Your task to perform on an android device: Open Yahoo.com Image 0: 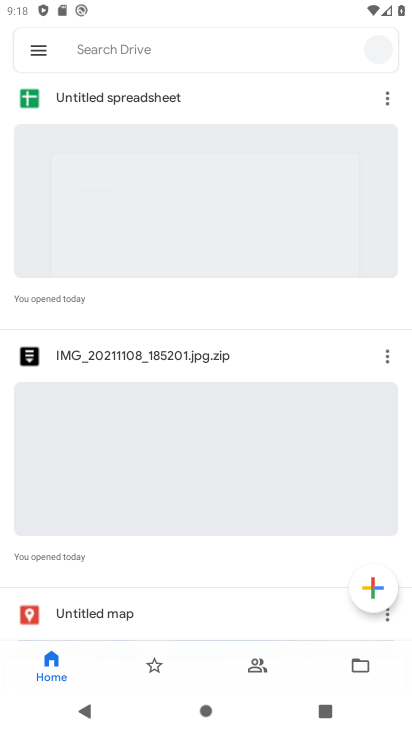
Step 0: drag from (259, 569) to (264, 502)
Your task to perform on an android device: Open Yahoo.com Image 1: 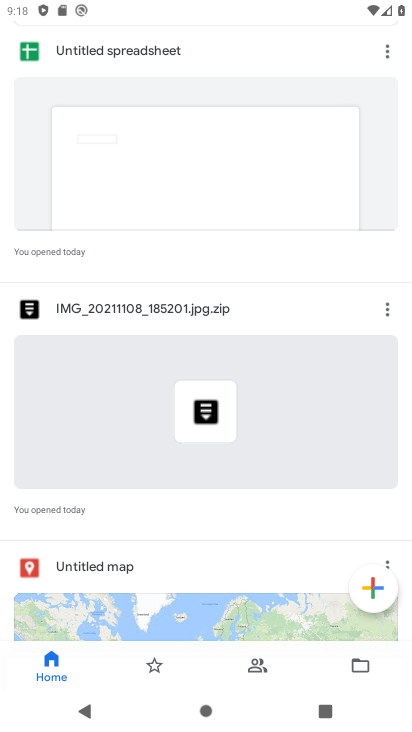
Step 1: press home button
Your task to perform on an android device: Open Yahoo.com Image 2: 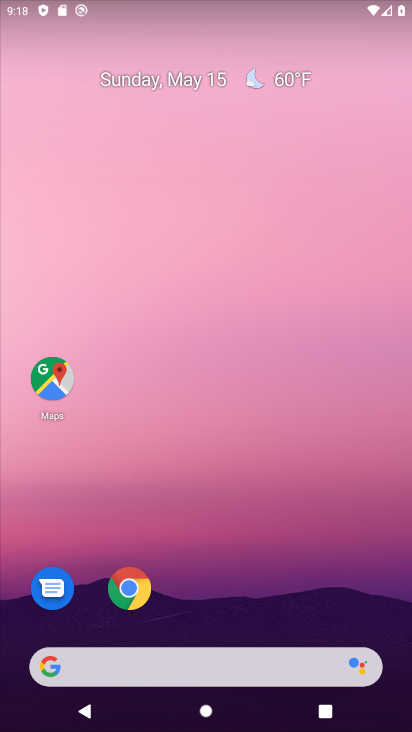
Step 2: click (137, 590)
Your task to perform on an android device: Open Yahoo.com Image 3: 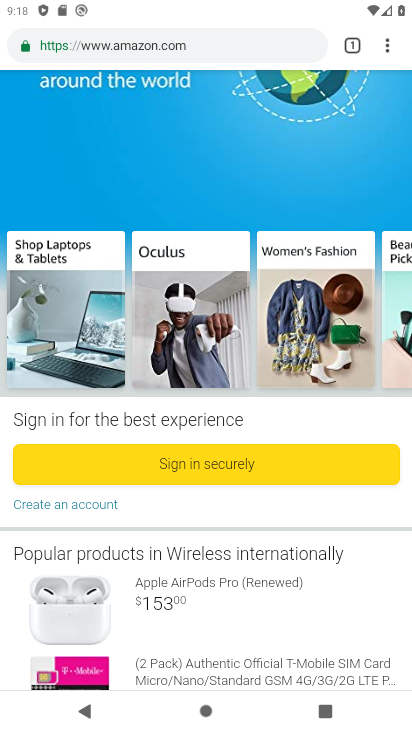
Step 3: click (216, 40)
Your task to perform on an android device: Open Yahoo.com Image 4: 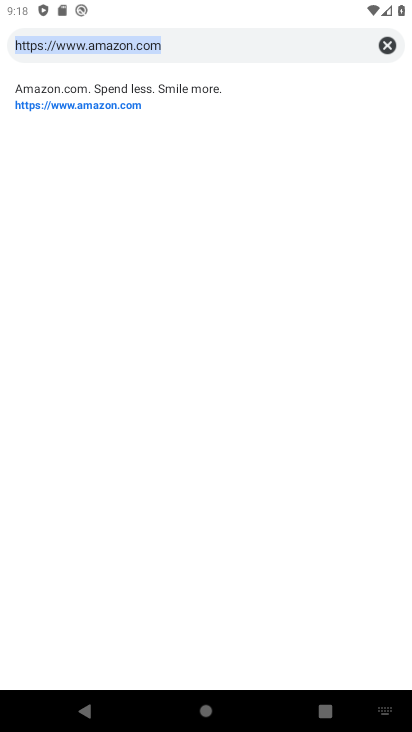
Step 4: type "yahoo.com"
Your task to perform on an android device: Open Yahoo.com Image 5: 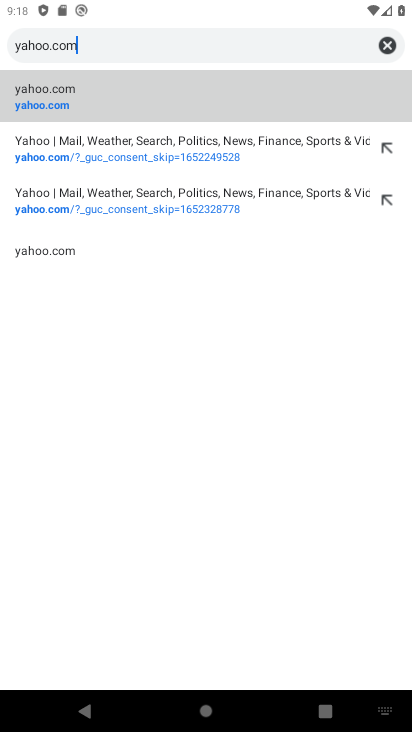
Step 5: click (80, 100)
Your task to perform on an android device: Open Yahoo.com Image 6: 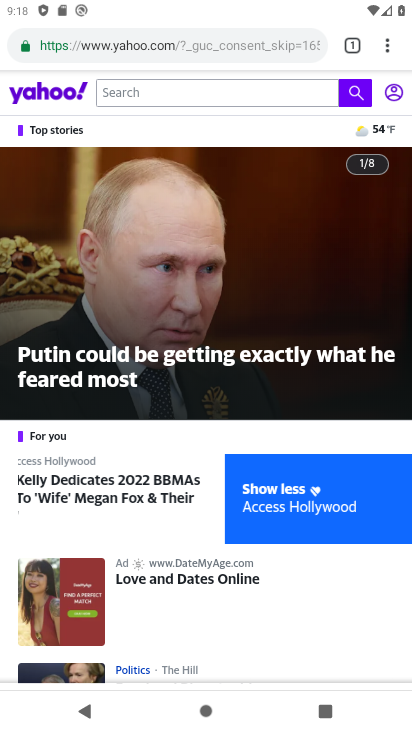
Step 6: task complete